Your task to perform on an android device: show emergency info Image 0: 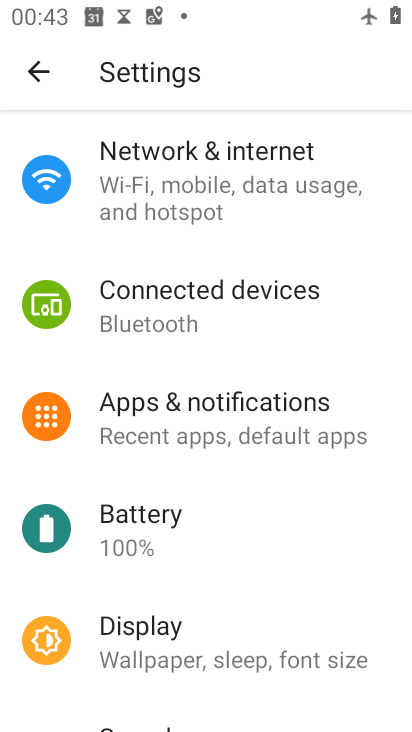
Step 0: drag from (252, 633) to (301, 258)
Your task to perform on an android device: show emergency info Image 1: 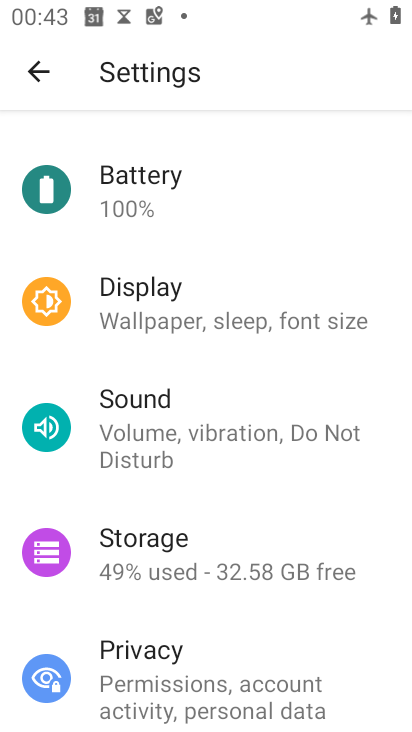
Step 1: drag from (274, 653) to (305, 258)
Your task to perform on an android device: show emergency info Image 2: 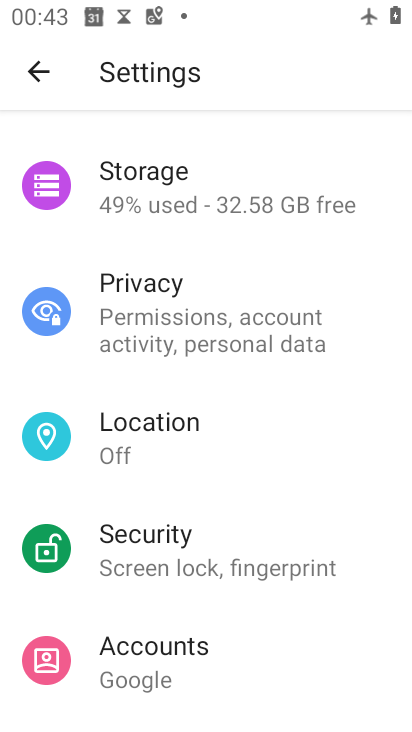
Step 2: drag from (179, 640) to (220, 244)
Your task to perform on an android device: show emergency info Image 3: 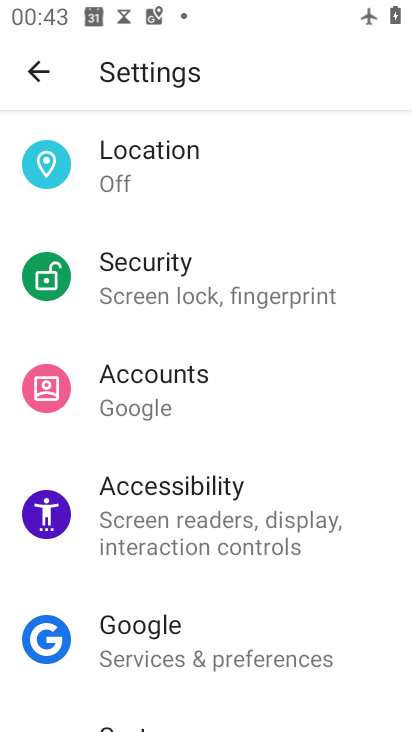
Step 3: drag from (174, 660) to (264, 240)
Your task to perform on an android device: show emergency info Image 4: 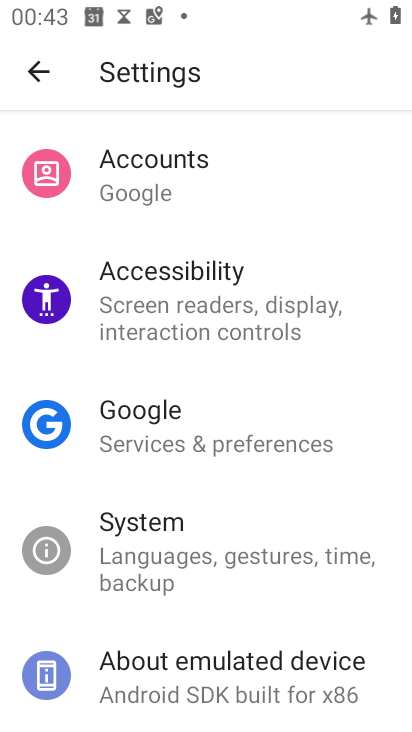
Step 4: click (168, 671)
Your task to perform on an android device: show emergency info Image 5: 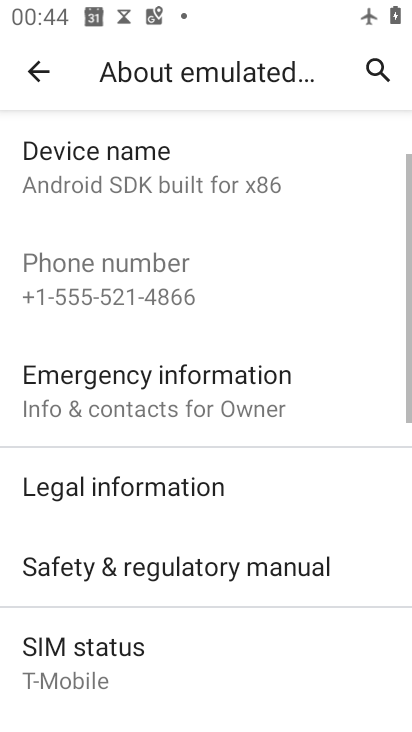
Step 5: drag from (176, 632) to (191, 375)
Your task to perform on an android device: show emergency info Image 6: 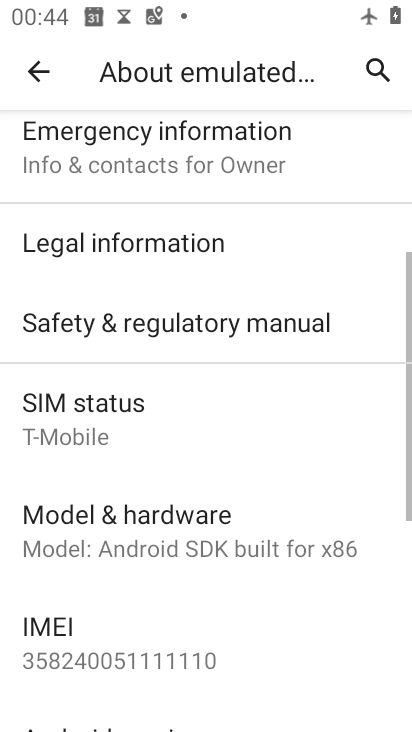
Step 6: click (176, 152)
Your task to perform on an android device: show emergency info Image 7: 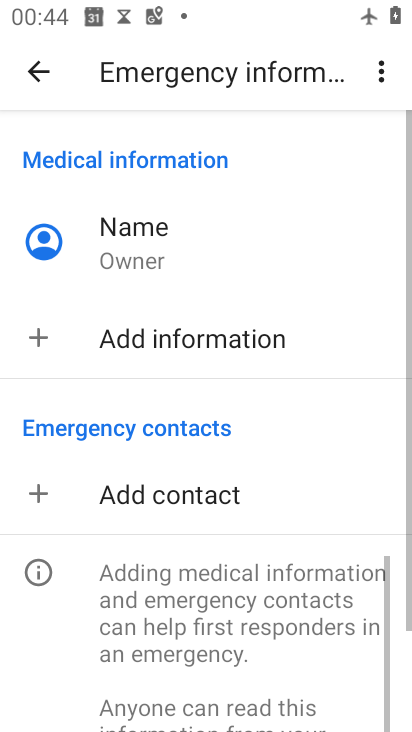
Step 7: task complete